Your task to perform on an android device: Go to CNN.com Image 0: 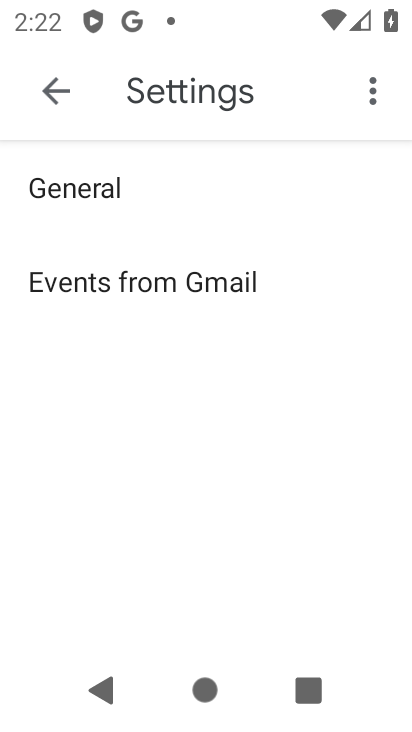
Step 0: press home button
Your task to perform on an android device: Go to CNN.com Image 1: 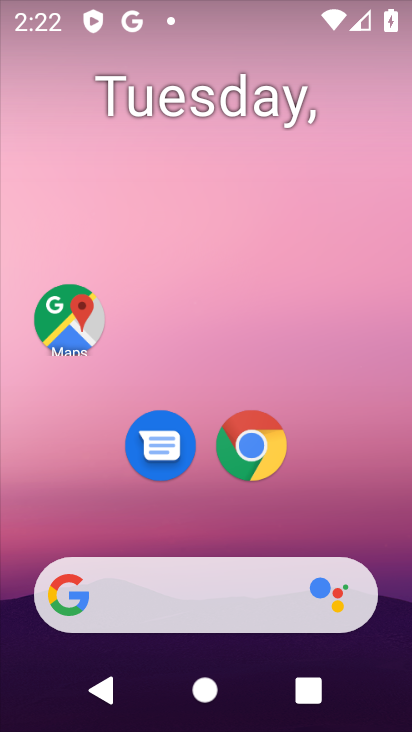
Step 1: click (190, 604)
Your task to perform on an android device: Go to CNN.com Image 2: 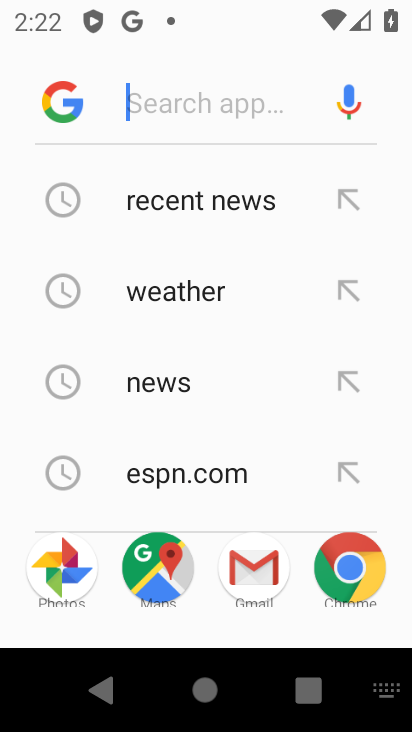
Step 2: type "cnn,com"
Your task to perform on an android device: Go to CNN.com Image 3: 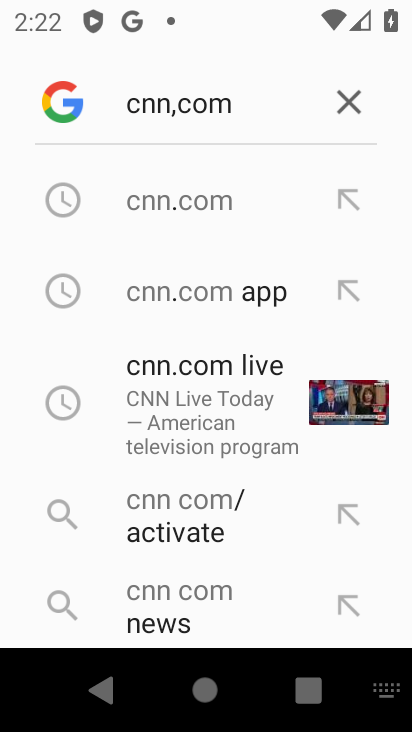
Step 3: click (201, 204)
Your task to perform on an android device: Go to CNN.com Image 4: 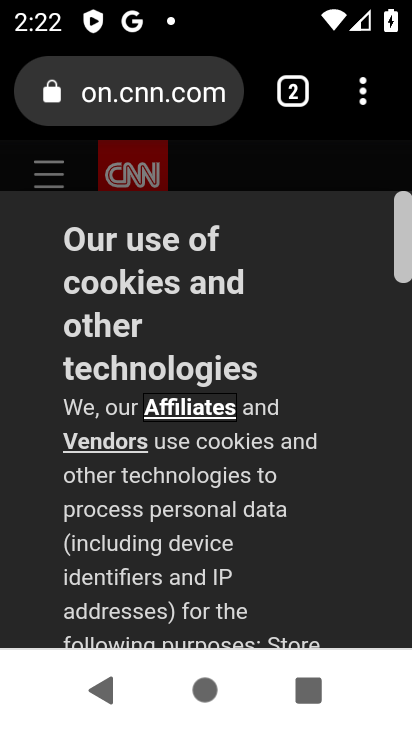
Step 4: task complete